Your task to perform on an android device: open app "Expedia: Hotels, Flights & Car" (install if not already installed) Image 0: 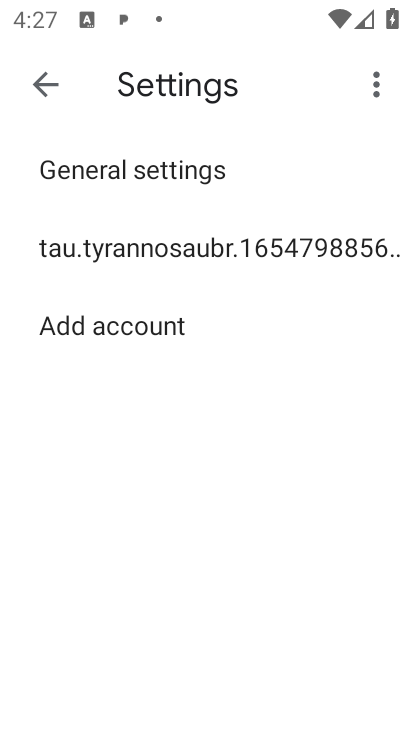
Step 0: press home button
Your task to perform on an android device: open app "Expedia: Hotels, Flights & Car" (install if not already installed) Image 1: 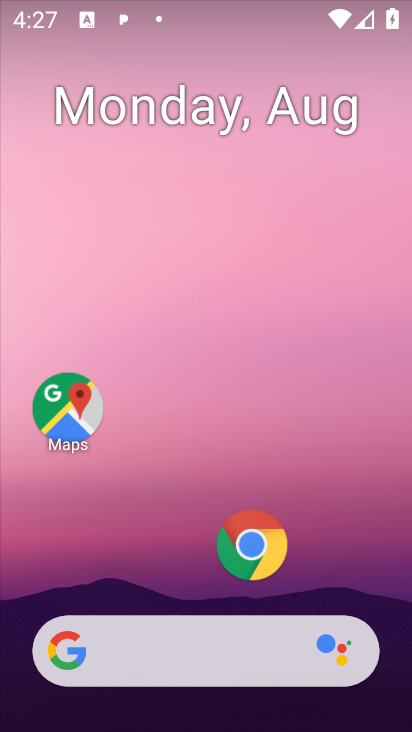
Step 1: drag from (116, 592) to (283, 85)
Your task to perform on an android device: open app "Expedia: Hotels, Flights & Car" (install if not already installed) Image 2: 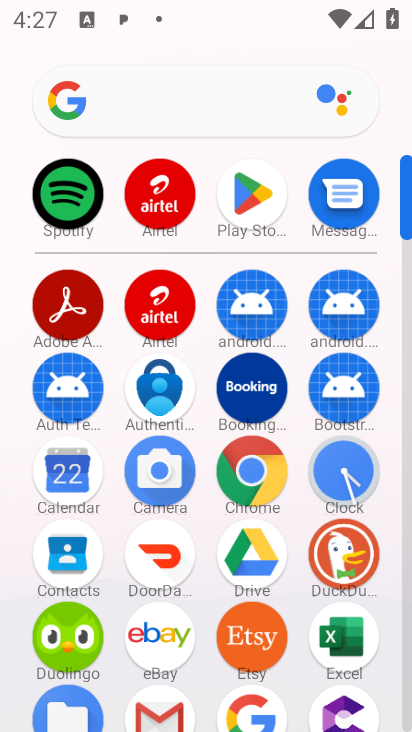
Step 2: click (252, 199)
Your task to perform on an android device: open app "Expedia: Hotels, Flights & Car" (install if not already installed) Image 3: 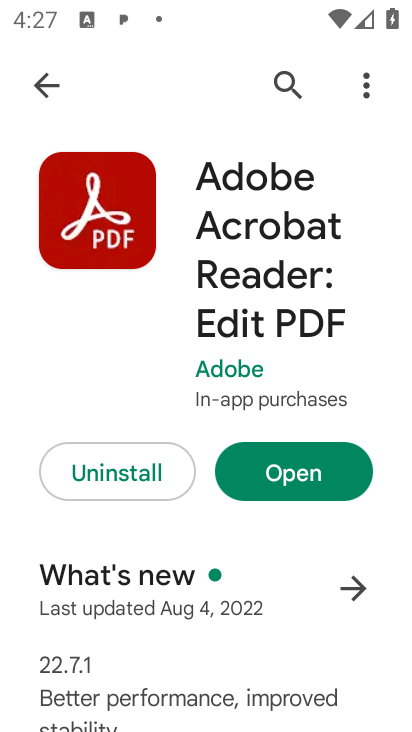
Step 3: click (263, 93)
Your task to perform on an android device: open app "Expedia: Hotels, Flights & Car" (install if not already installed) Image 4: 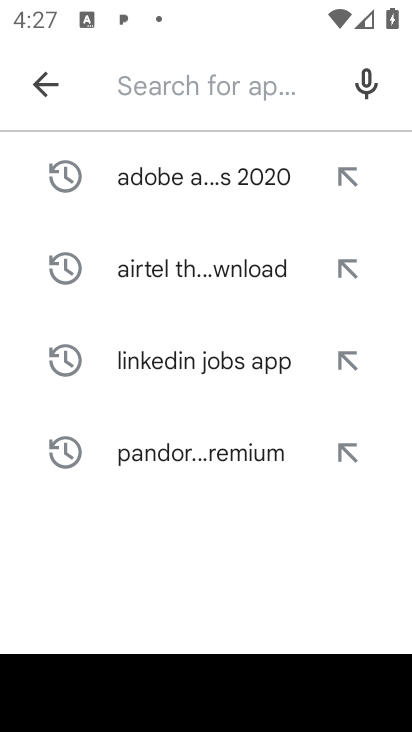
Step 4: click (184, 77)
Your task to perform on an android device: open app "Expedia: Hotels, Flights & Car" (install if not already installed) Image 5: 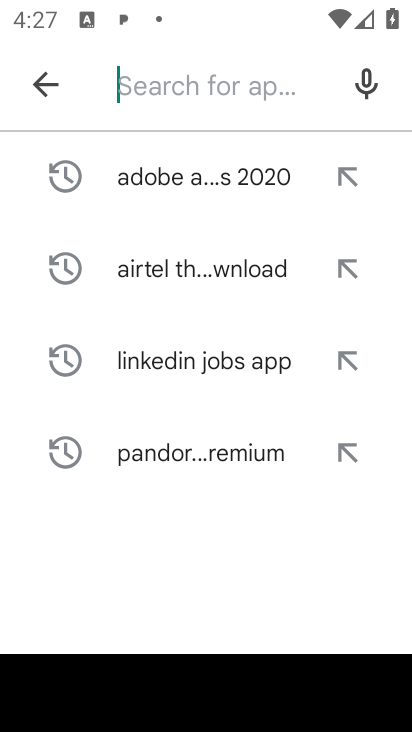
Step 5: type "Expedia"
Your task to perform on an android device: open app "Expedia: Hotels, Flights & Car" (install if not already installed) Image 6: 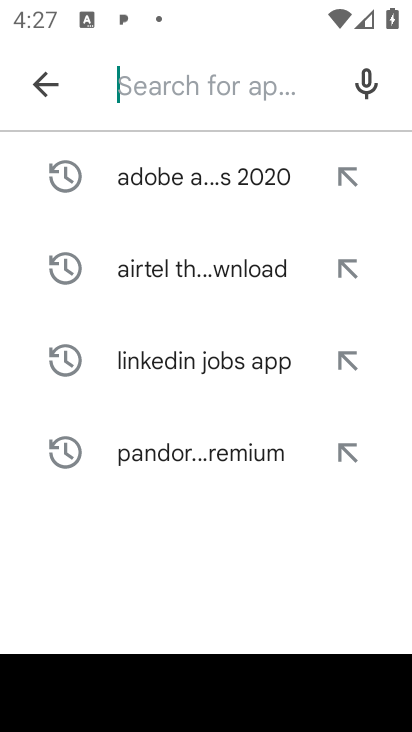
Step 6: click (188, 583)
Your task to perform on an android device: open app "Expedia: Hotels, Flights & Car" (install if not already installed) Image 7: 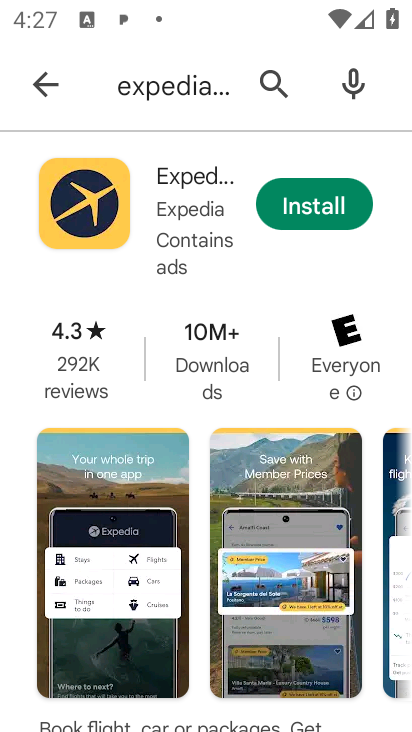
Step 7: click (310, 200)
Your task to perform on an android device: open app "Expedia: Hotels, Flights & Car" (install if not already installed) Image 8: 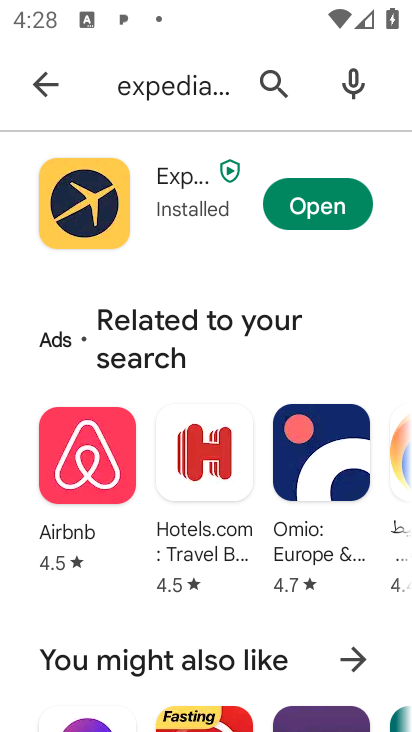
Step 8: click (343, 199)
Your task to perform on an android device: open app "Expedia: Hotels, Flights & Car" (install if not already installed) Image 9: 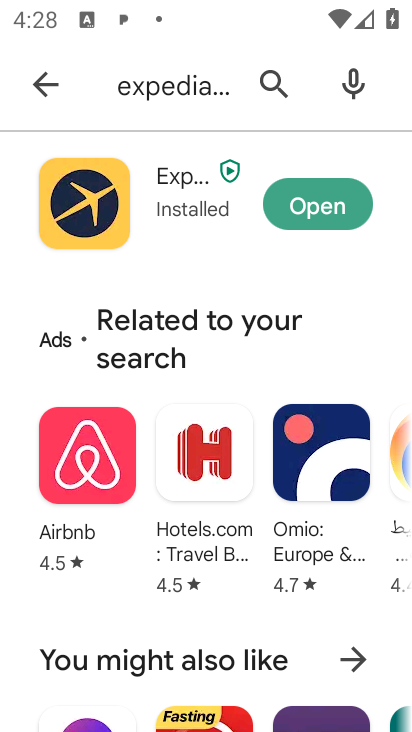
Step 9: task complete